Your task to perform on an android device: open chrome privacy settings Image 0: 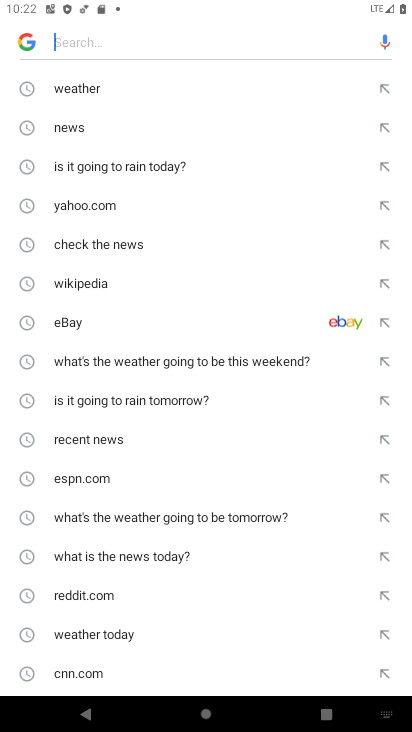
Step 0: press back button
Your task to perform on an android device: open chrome privacy settings Image 1: 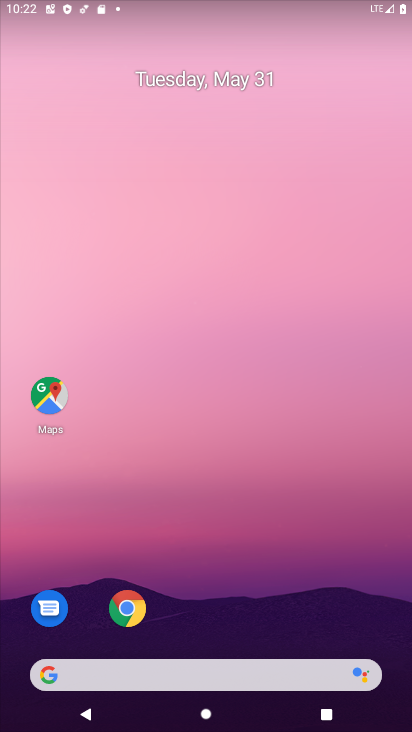
Step 1: drag from (119, 597) to (189, 597)
Your task to perform on an android device: open chrome privacy settings Image 2: 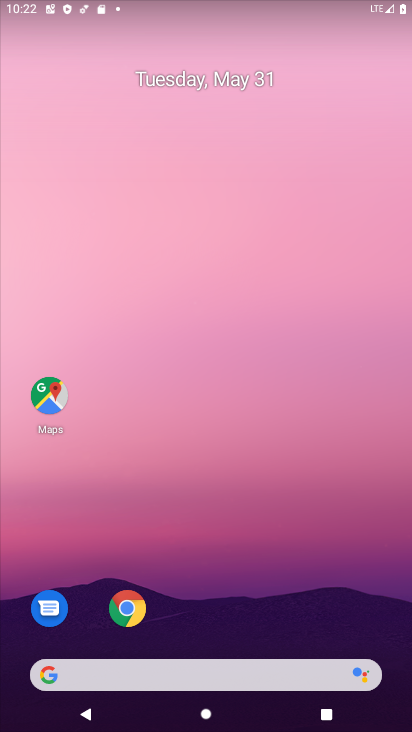
Step 2: click (117, 619)
Your task to perform on an android device: open chrome privacy settings Image 3: 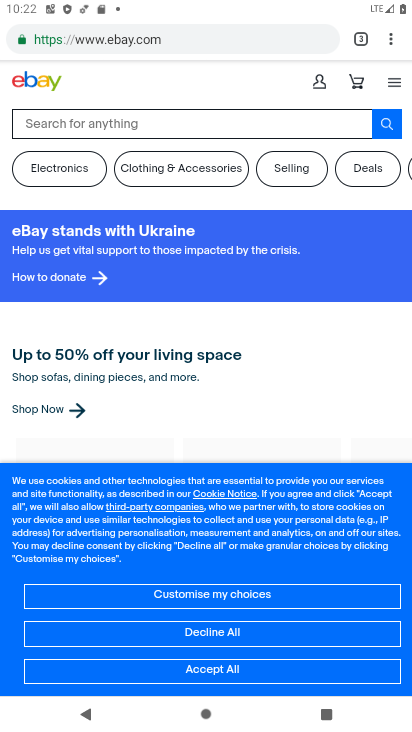
Step 3: click (393, 39)
Your task to perform on an android device: open chrome privacy settings Image 4: 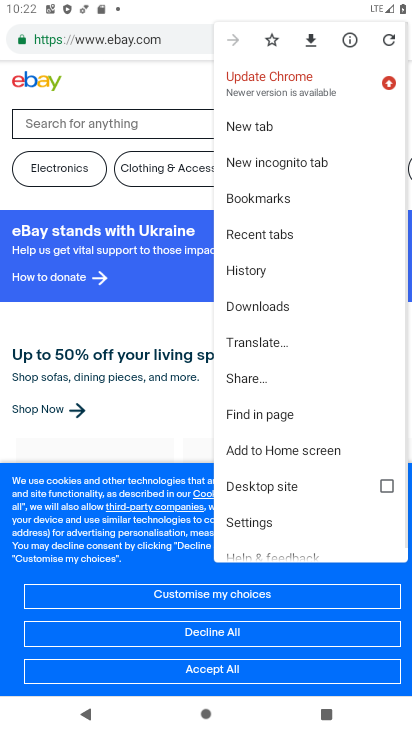
Step 4: click (268, 508)
Your task to perform on an android device: open chrome privacy settings Image 5: 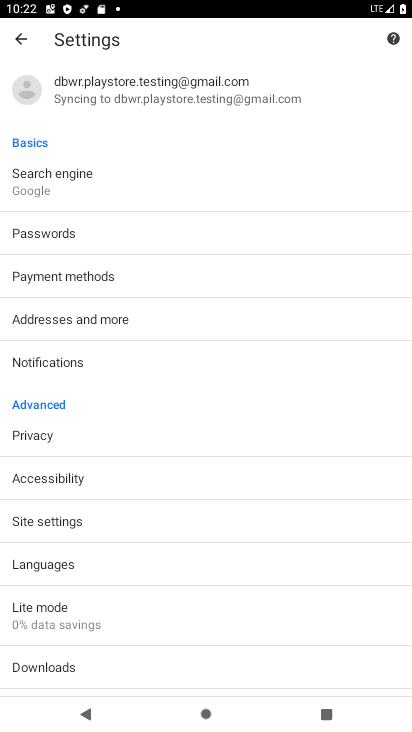
Step 5: click (33, 435)
Your task to perform on an android device: open chrome privacy settings Image 6: 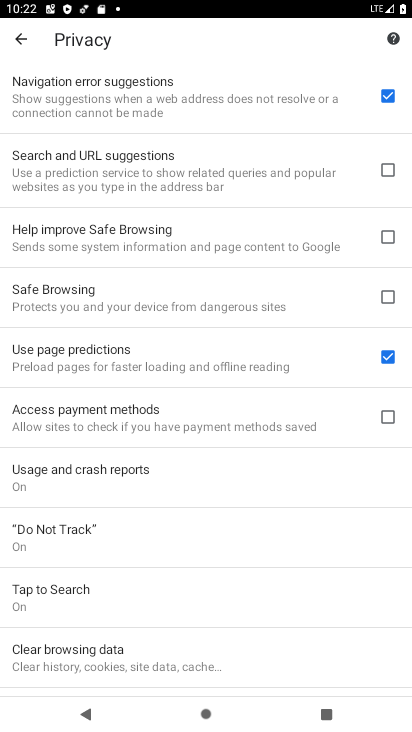
Step 6: task complete